Your task to perform on an android device: Go to display settings Image 0: 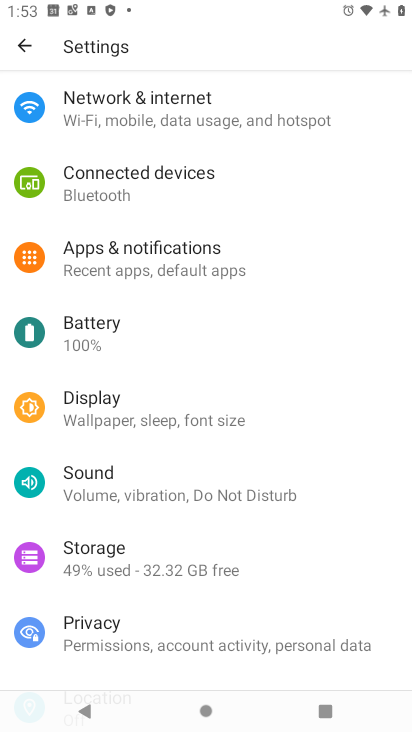
Step 0: click (168, 422)
Your task to perform on an android device: Go to display settings Image 1: 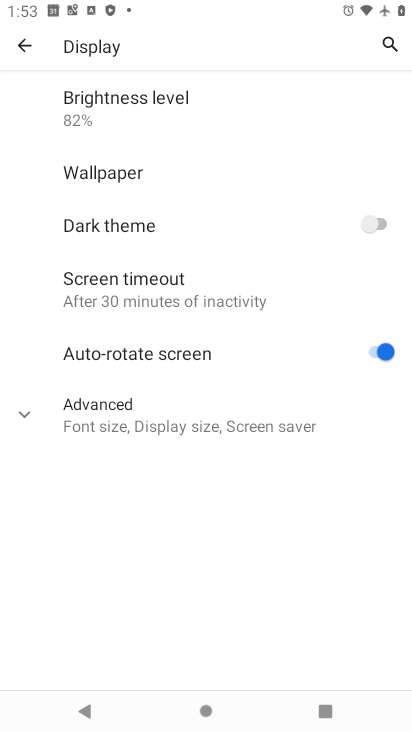
Step 1: task complete